Your task to perform on an android device: turn off airplane mode Image 0: 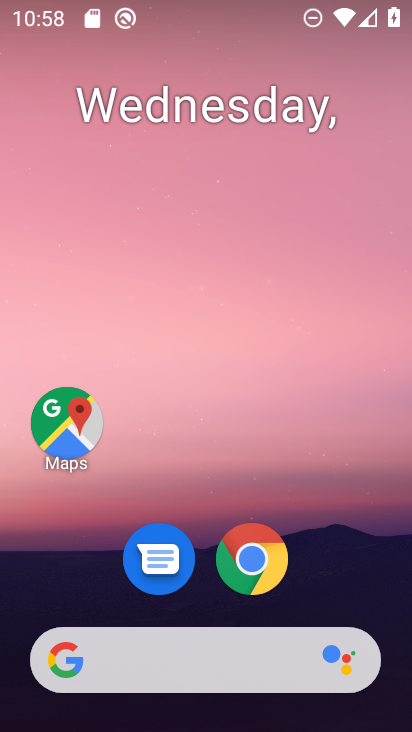
Step 0: drag from (340, 559) to (341, 115)
Your task to perform on an android device: turn off airplane mode Image 1: 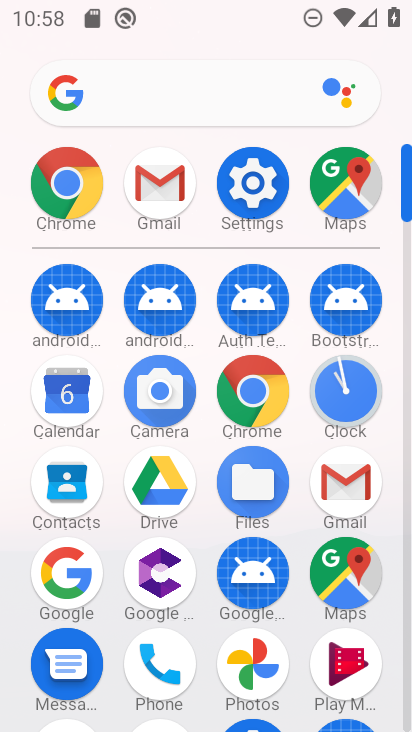
Step 1: click (274, 200)
Your task to perform on an android device: turn off airplane mode Image 2: 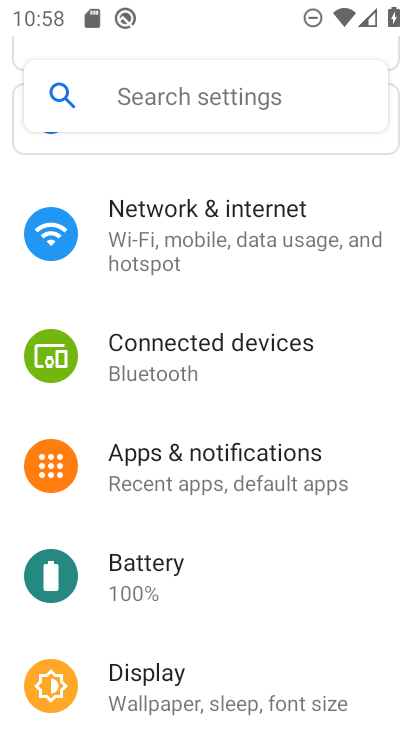
Step 2: drag from (362, 518) to (370, 416)
Your task to perform on an android device: turn off airplane mode Image 3: 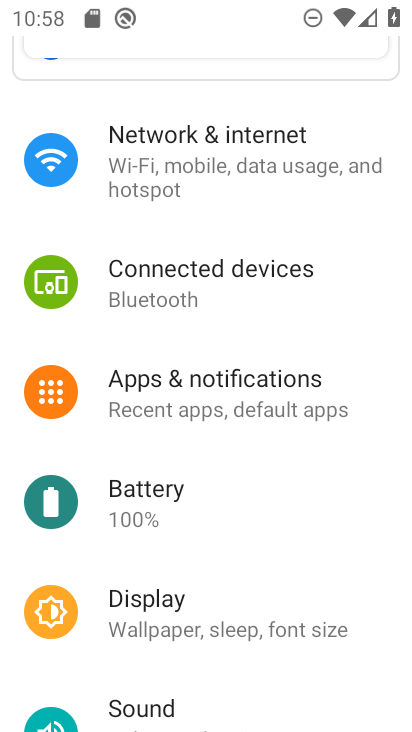
Step 3: drag from (357, 540) to (363, 396)
Your task to perform on an android device: turn off airplane mode Image 4: 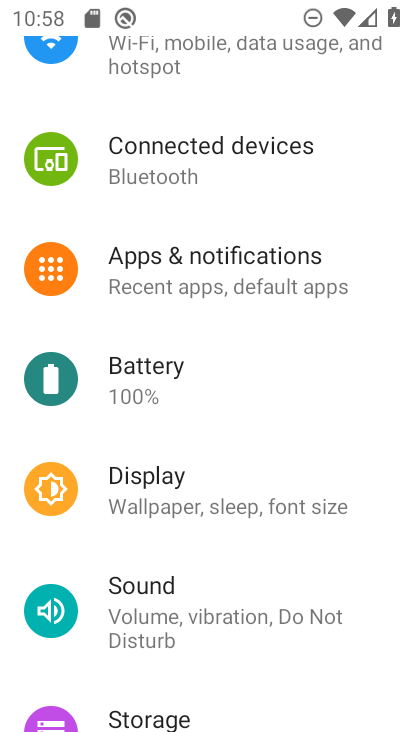
Step 4: drag from (376, 562) to (385, 435)
Your task to perform on an android device: turn off airplane mode Image 5: 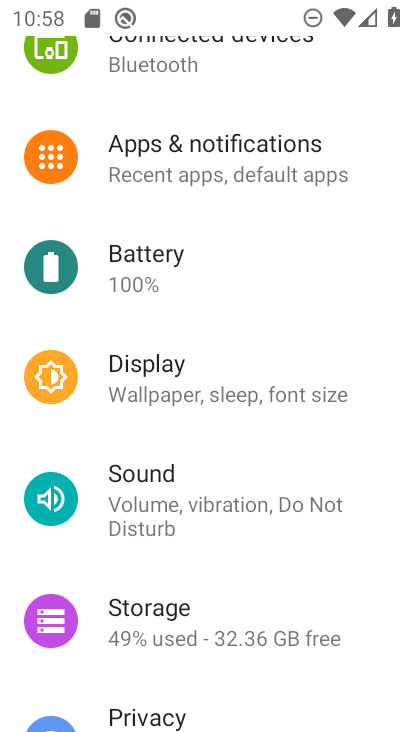
Step 5: drag from (375, 608) to (366, 456)
Your task to perform on an android device: turn off airplane mode Image 6: 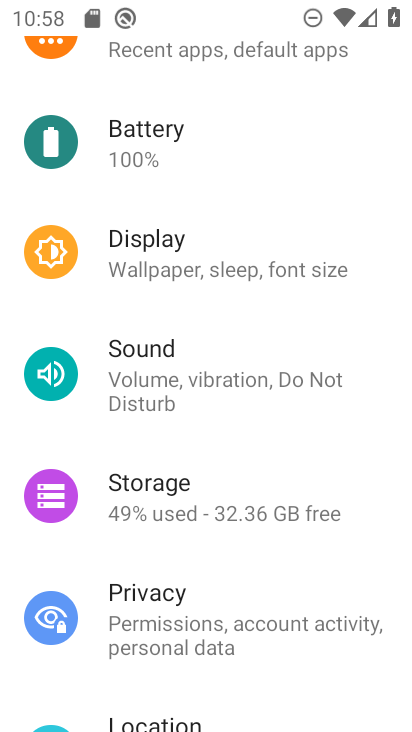
Step 6: drag from (360, 620) to (369, 403)
Your task to perform on an android device: turn off airplane mode Image 7: 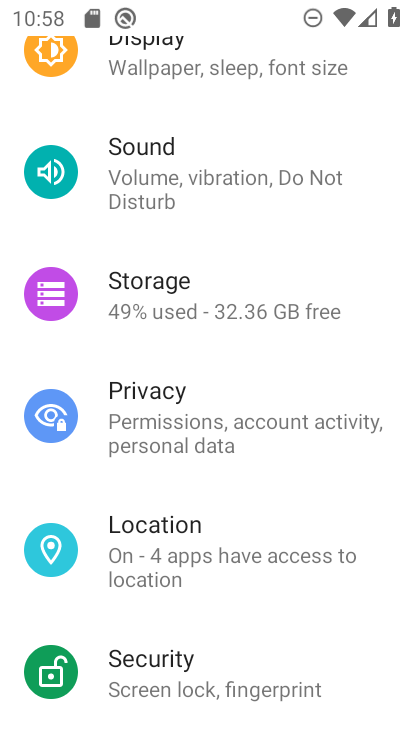
Step 7: drag from (381, 623) to (383, 366)
Your task to perform on an android device: turn off airplane mode Image 8: 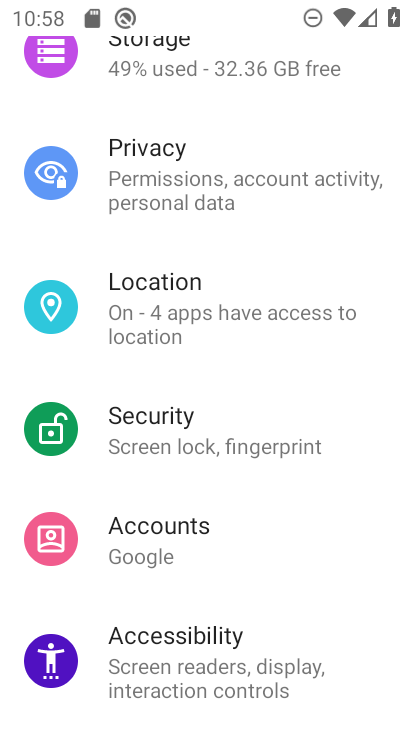
Step 8: drag from (368, 587) to (359, 327)
Your task to perform on an android device: turn off airplane mode Image 9: 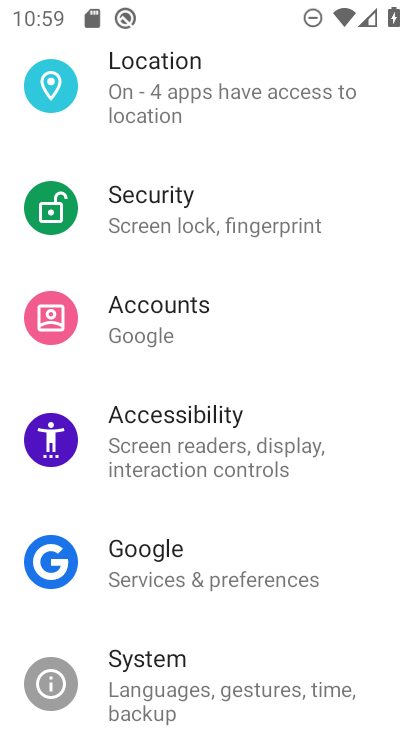
Step 9: drag from (360, 606) to (367, 346)
Your task to perform on an android device: turn off airplane mode Image 10: 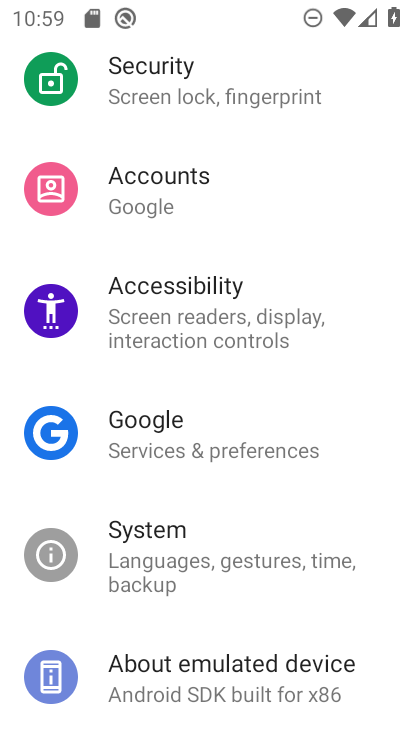
Step 10: drag from (363, 272) to (375, 582)
Your task to perform on an android device: turn off airplane mode Image 11: 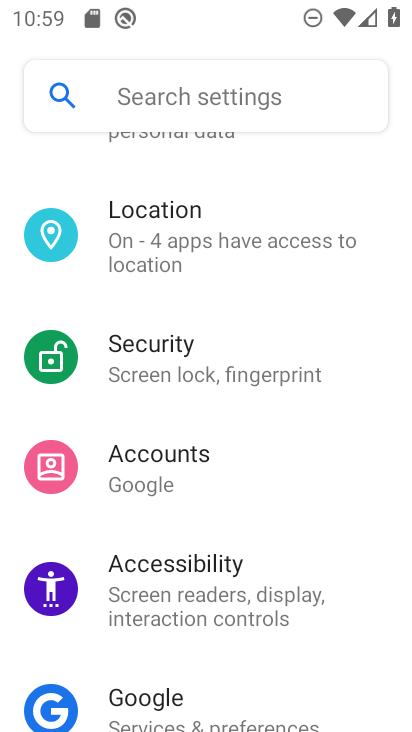
Step 11: drag from (353, 300) to (355, 516)
Your task to perform on an android device: turn off airplane mode Image 12: 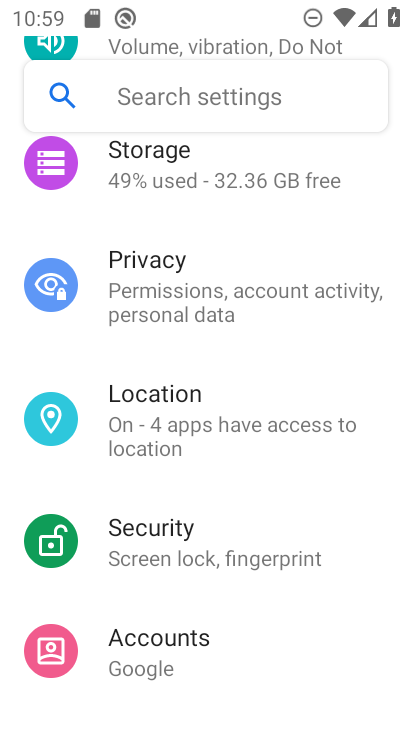
Step 12: drag from (362, 227) to (368, 400)
Your task to perform on an android device: turn off airplane mode Image 13: 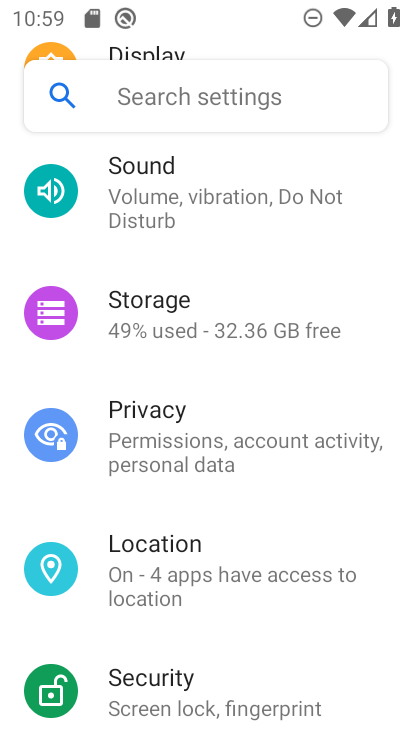
Step 13: drag from (370, 209) to (373, 359)
Your task to perform on an android device: turn off airplane mode Image 14: 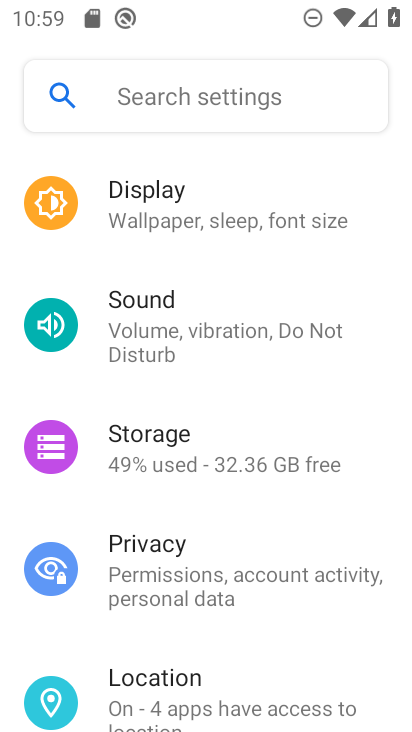
Step 14: drag from (380, 170) to (383, 391)
Your task to perform on an android device: turn off airplane mode Image 15: 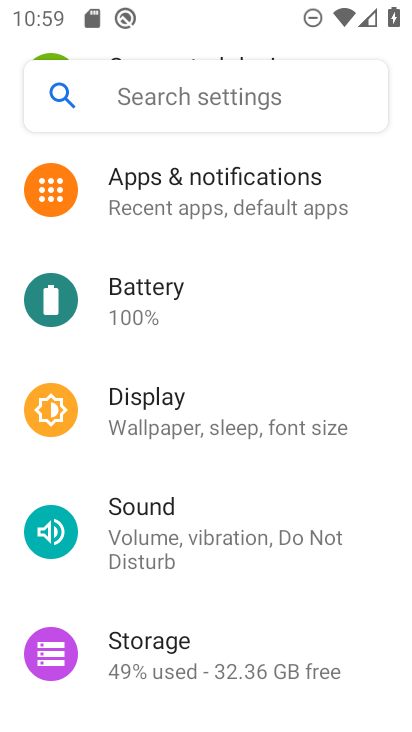
Step 15: drag from (364, 182) to (381, 411)
Your task to perform on an android device: turn off airplane mode Image 16: 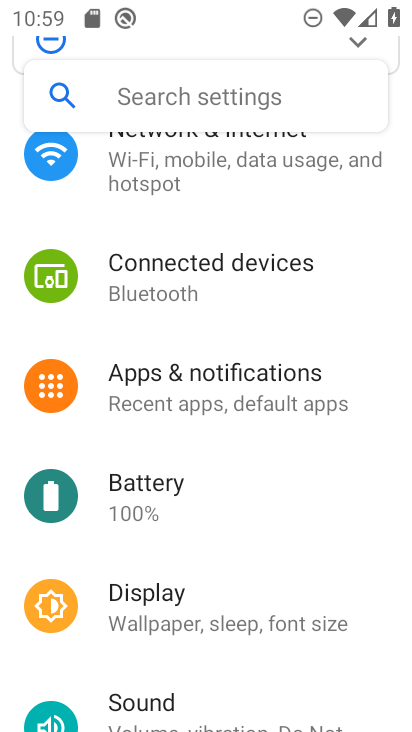
Step 16: drag from (387, 142) to (386, 347)
Your task to perform on an android device: turn off airplane mode Image 17: 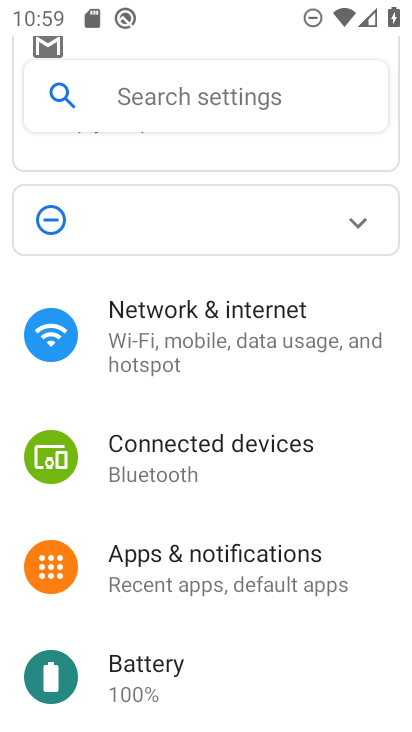
Step 17: click (281, 336)
Your task to perform on an android device: turn off airplane mode Image 18: 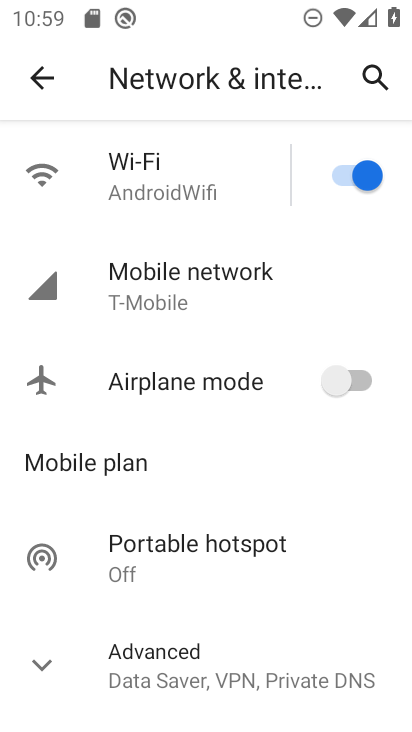
Step 18: task complete